Your task to perform on an android device: create a new album in the google photos Image 0: 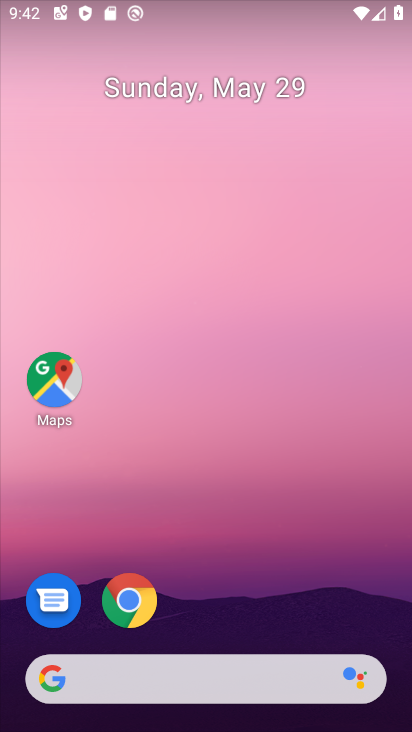
Step 0: drag from (193, 717) to (172, 97)
Your task to perform on an android device: create a new album in the google photos Image 1: 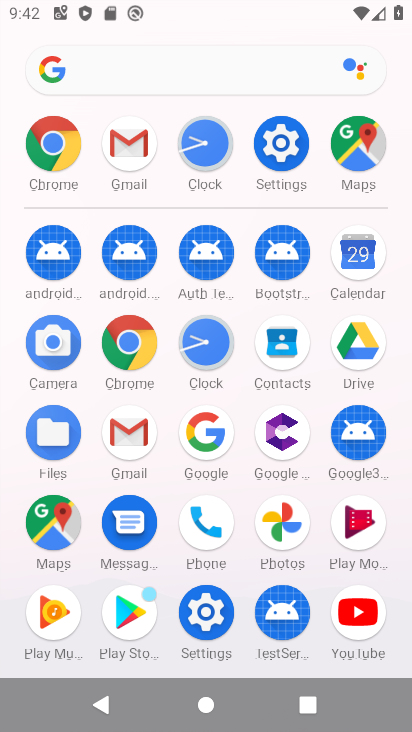
Step 1: click (278, 520)
Your task to perform on an android device: create a new album in the google photos Image 2: 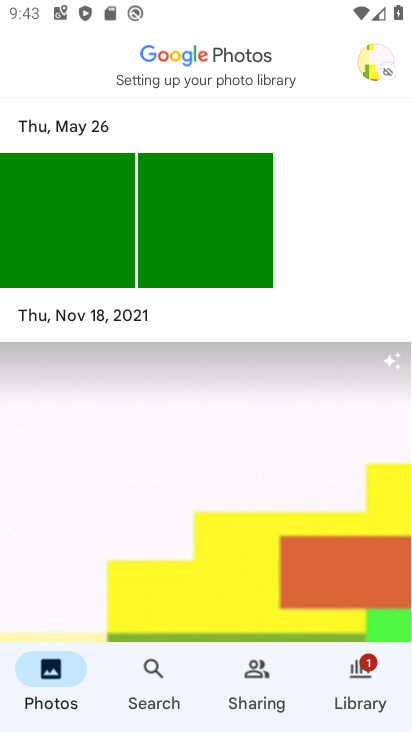
Step 2: click (362, 677)
Your task to perform on an android device: create a new album in the google photos Image 3: 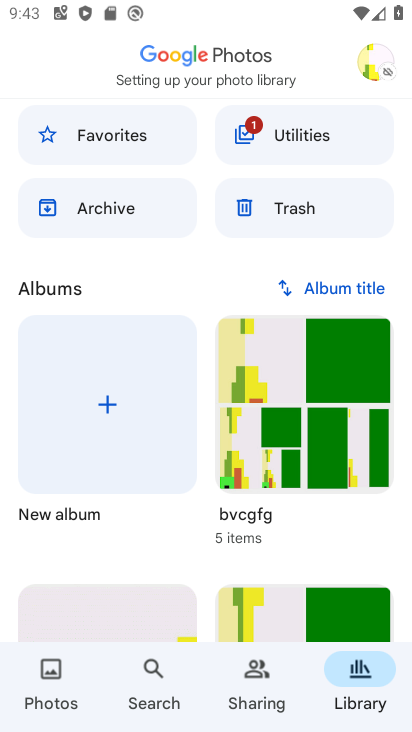
Step 3: click (106, 402)
Your task to perform on an android device: create a new album in the google photos Image 4: 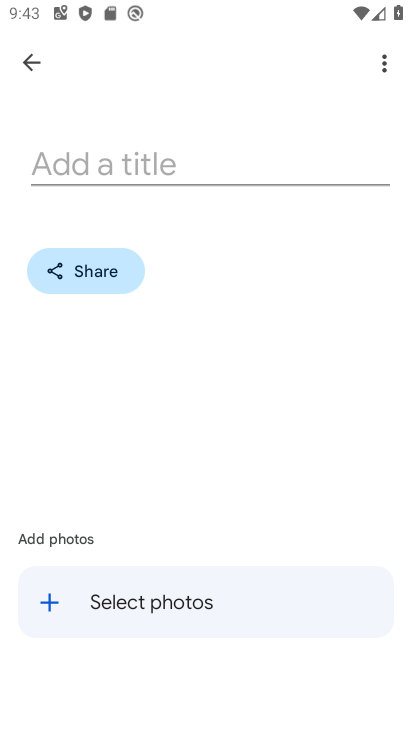
Step 4: click (106, 402)
Your task to perform on an android device: create a new album in the google photos Image 5: 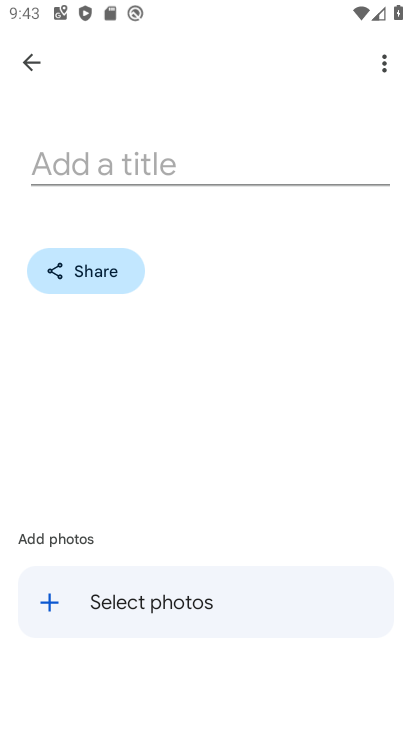
Step 5: click (187, 158)
Your task to perform on an android device: create a new album in the google photos Image 6: 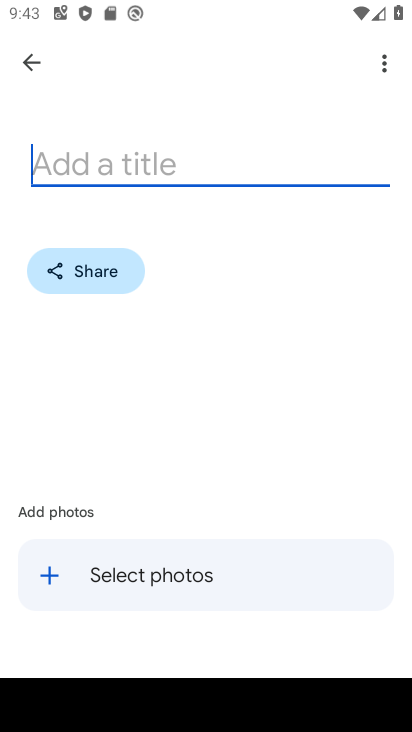
Step 6: type "saving"
Your task to perform on an android device: create a new album in the google photos Image 7: 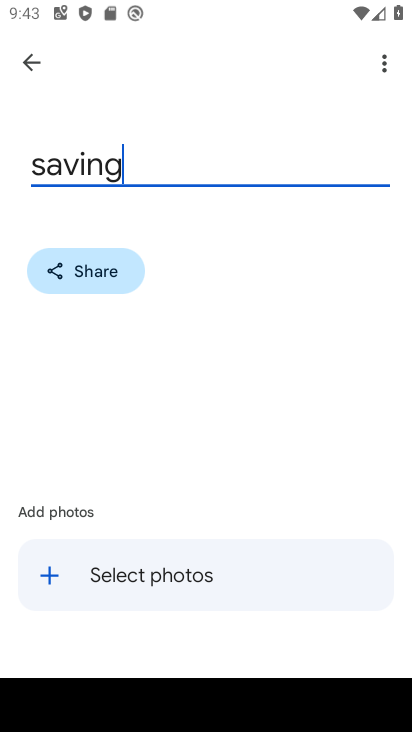
Step 7: click (142, 564)
Your task to perform on an android device: create a new album in the google photos Image 8: 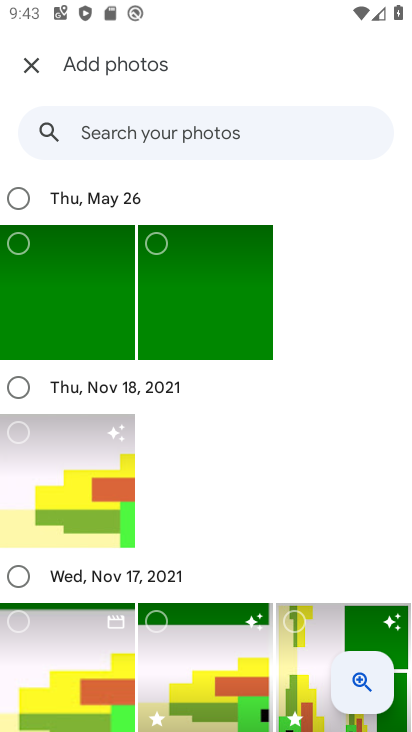
Step 8: click (14, 249)
Your task to perform on an android device: create a new album in the google photos Image 9: 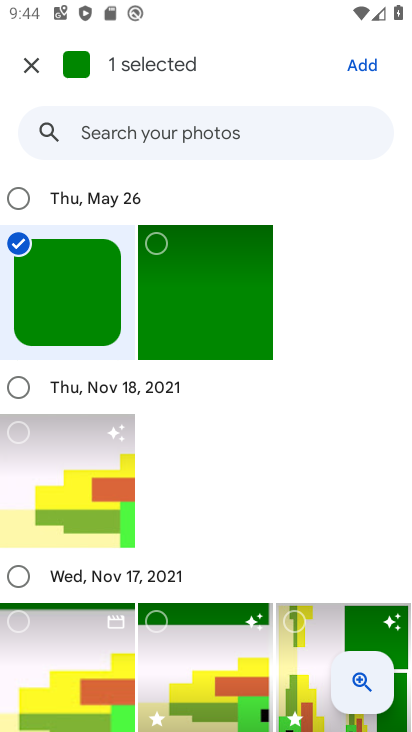
Step 9: click (355, 63)
Your task to perform on an android device: create a new album in the google photos Image 10: 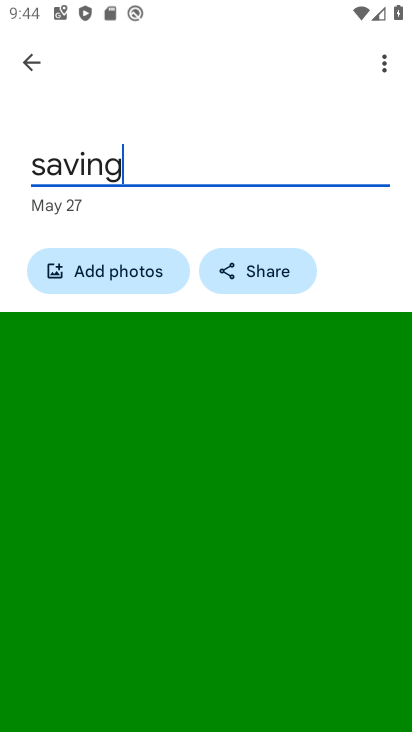
Step 10: click (334, 232)
Your task to perform on an android device: create a new album in the google photos Image 11: 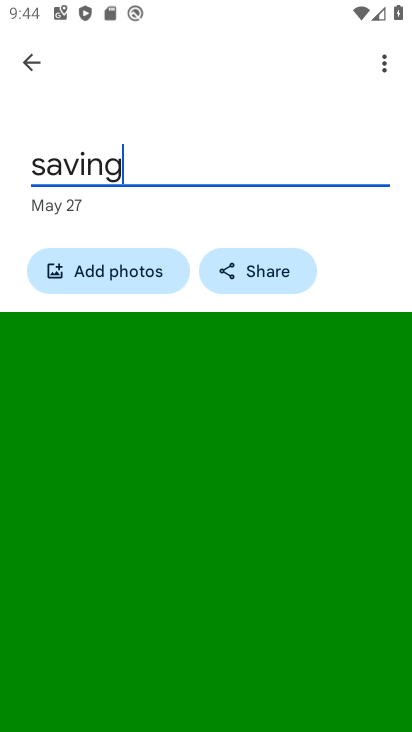
Step 11: click (346, 239)
Your task to perform on an android device: create a new album in the google photos Image 12: 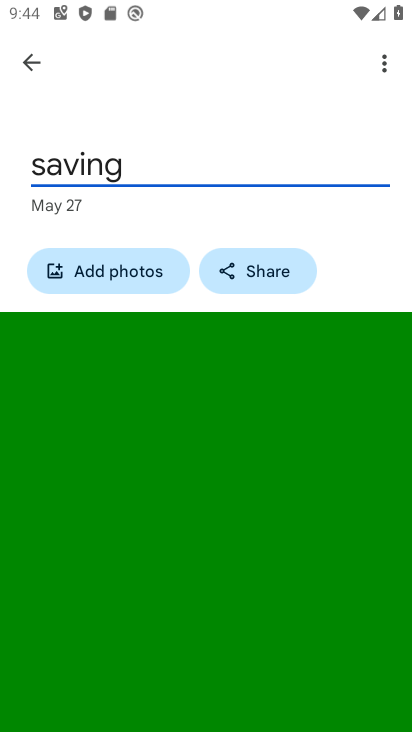
Step 12: click (33, 66)
Your task to perform on an android device: create a new album in the google photos Image 13: 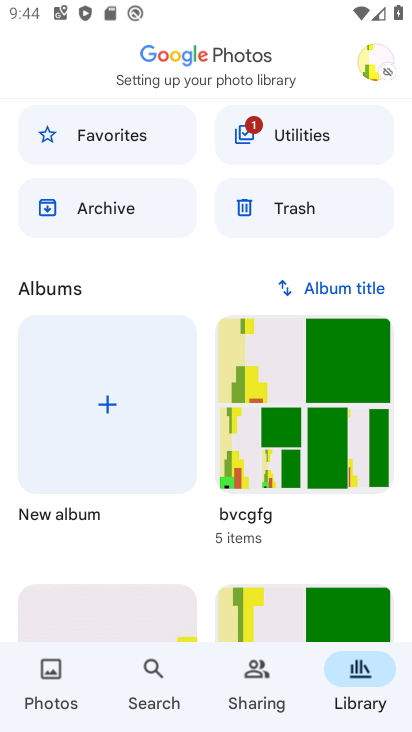
Step 13: task complete